Your task to perform on an android device: turn smart compose on in the gmail app Image 0: 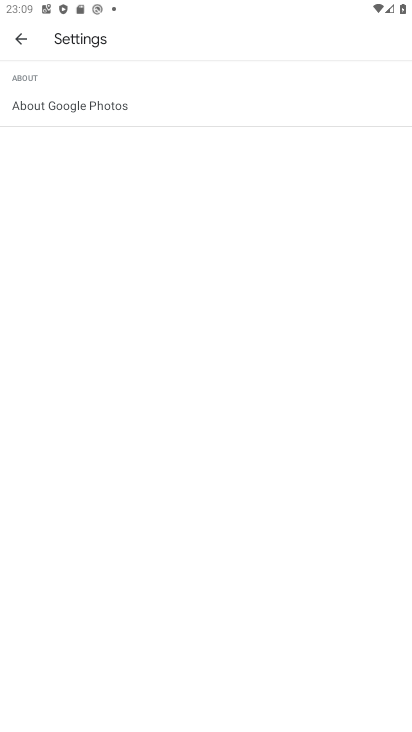
Step 0: press home button
Your task to perform on an android device: turn smart compose on in the gmail app Image 1: 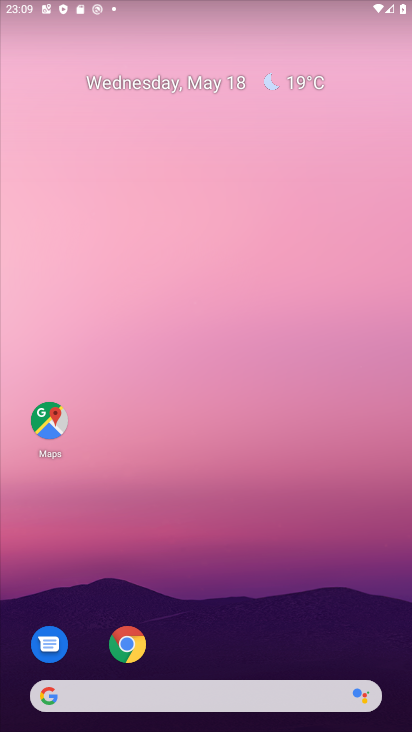
Step 1: drag from (360, 587) to (344, 112)
Your task to perform on an android device: turn smart compose on in the gmail app Image 2: 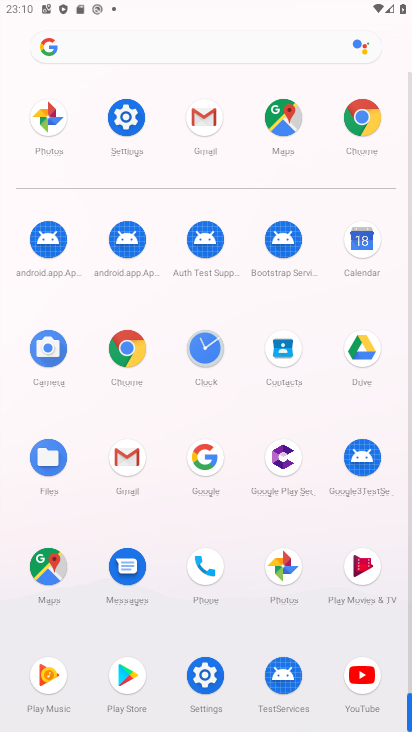
Step 2: click (204, 97)
Your task to perform on an android device: turn smart compose on in the gmail app Image 3: 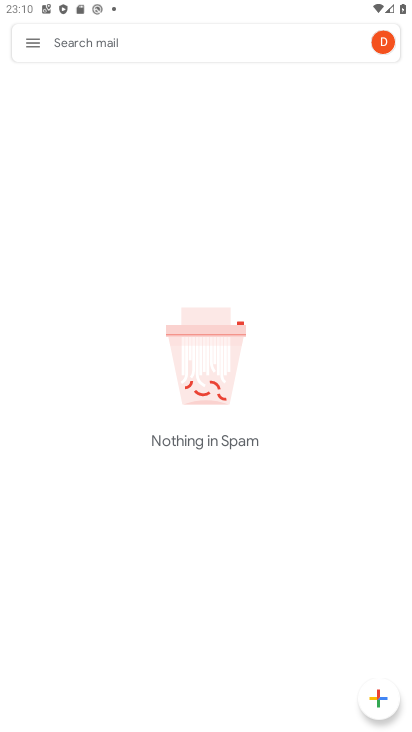
Step 3: click (41, 43)
Your task to perform on an android device: turn smart compose on in the gmail app Image 4: 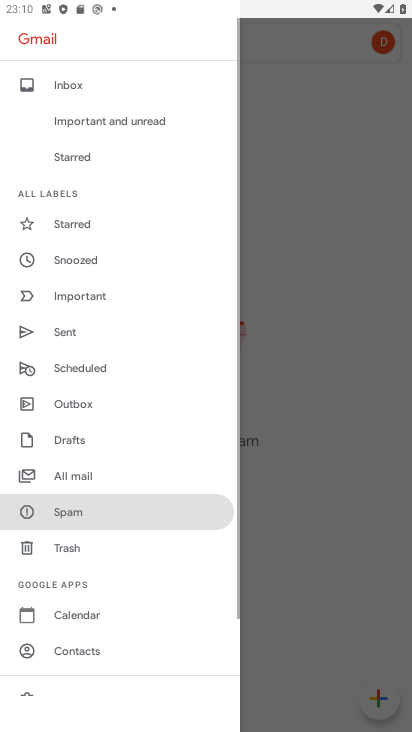
Step 4: drag from (104, 515) to (119, 325)
Your task to perform on an android device: turn smart compose on in the gmail app Image 5: 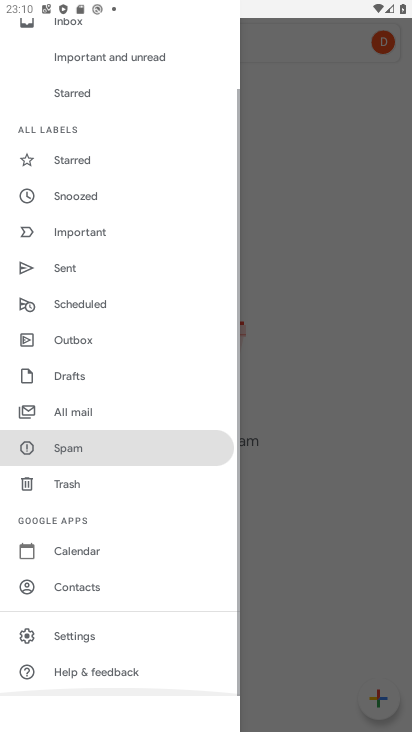
Step 5: drag from (121, 308) to (140, 212)
Your task to perform on an android device: turn smart compose on in the gmail app Image 6: 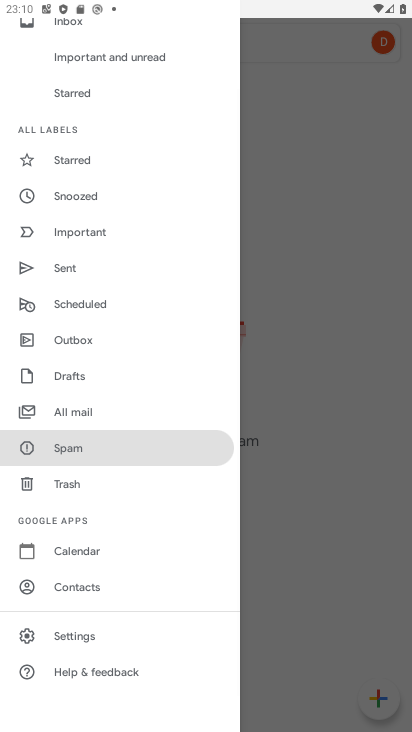
Step 6: click (88, 645)
Your task to perform on an android device: turn smart compose on in the gmail app Image 7: 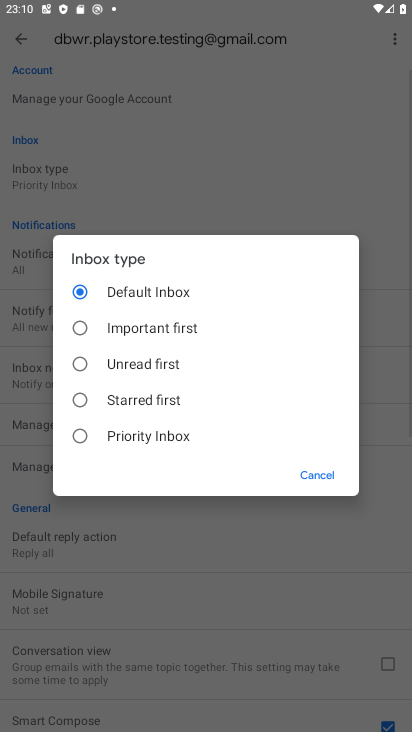
Step 7: click (317, 466)
Your task to perform on an android device: turn smart compose on in the gmail app Image 8: 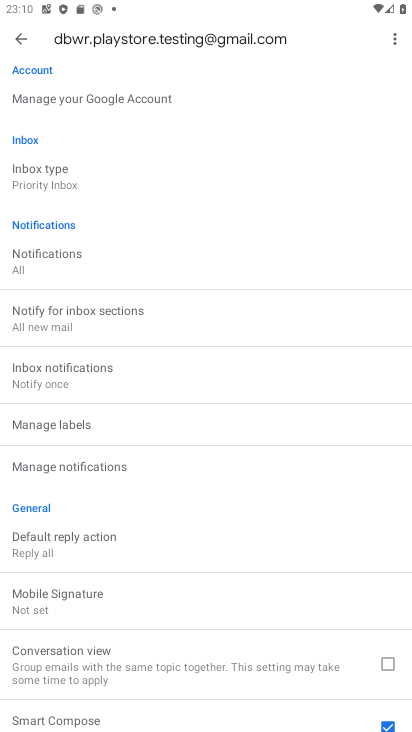
Step 8: task complete